Your task to perform on an android device: toggle pop-ups in chrome Image 0: 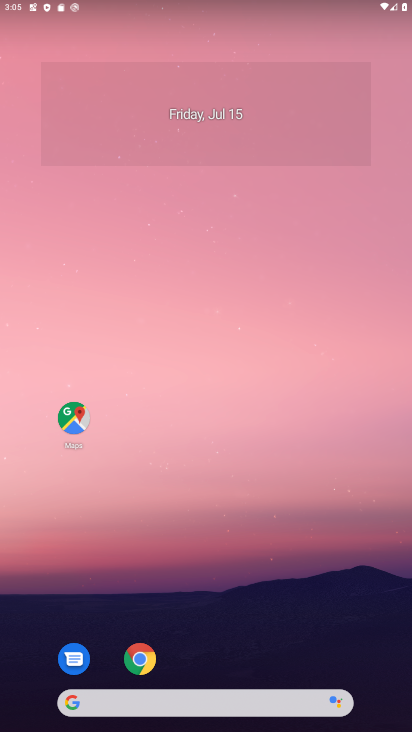
Step 0: click (159, 656)
Your task to perform on an android device: toggle pop-ups in chrome Image 1: 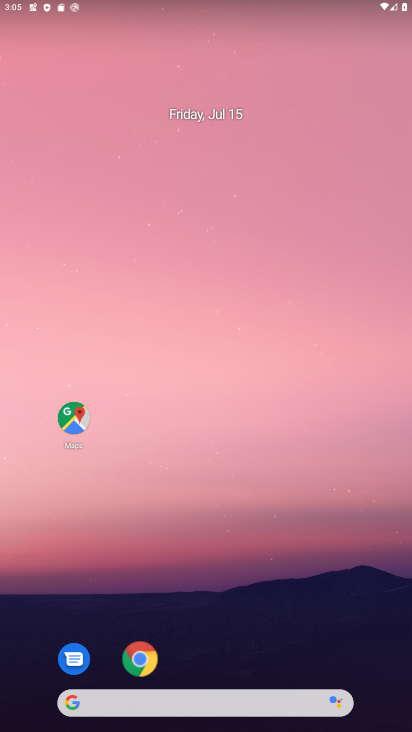
Step 1: click (149, 658)
Your task to perform on an android device: toggle pop-ups in chrome Image 2: 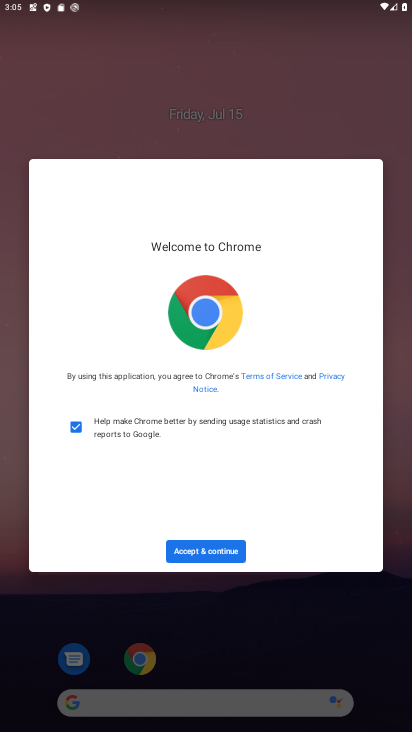
Step 2: click (219, 556)
Your task to perform on an android device: toggle pop-ups in chrome Image 3: 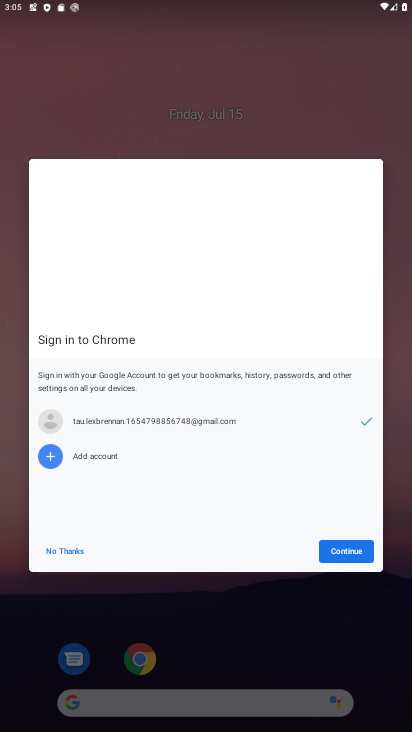
Step 3: click (331, 552)
Your task to perform on an android device: toggle pop-ups in chrome Image 4: 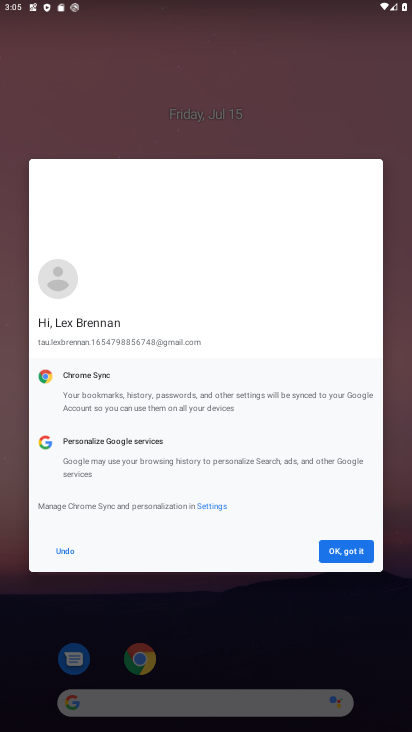
Step 4: click (341, 554)
Your task to perform on an android device: toggle pop-ups in chrome Image 5: 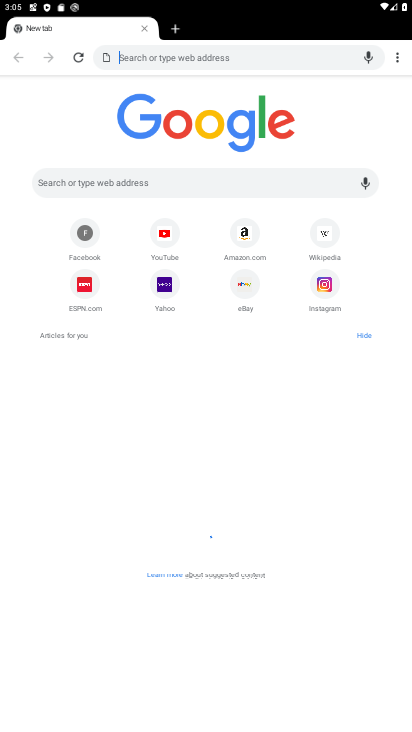
Step 5: click (398, 56)
Your task to perform on an android device: toggle pop-ups in chrome Image 6: 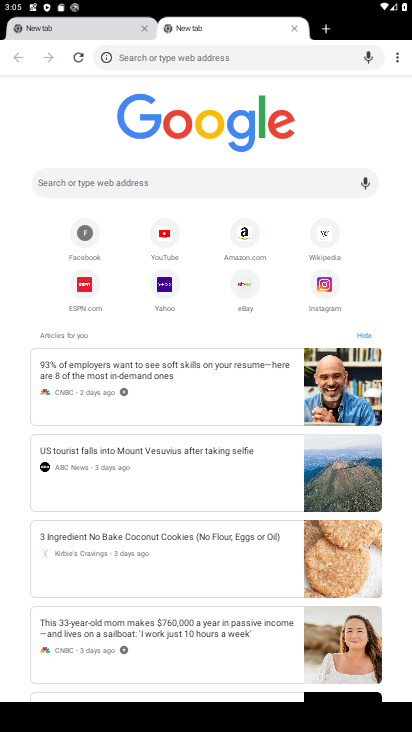
Step 6: click (393, 55)
Your task to perform on an android device: toggle pop-ups in chrome Image 7: 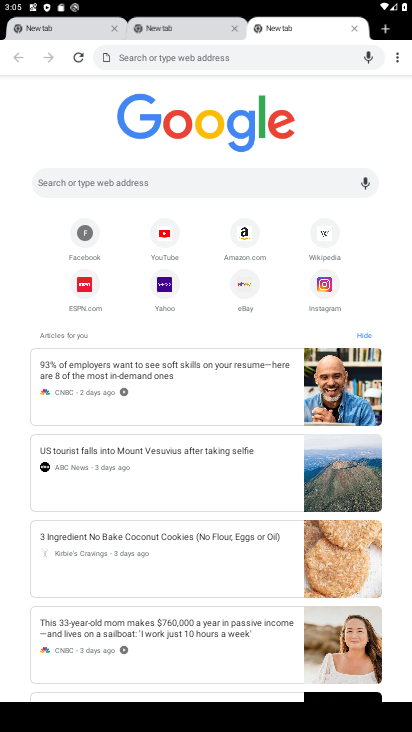
Step 7: click (392, 56)
Your task to perform on an android device: toggle pop-ups in chrome Image 8: 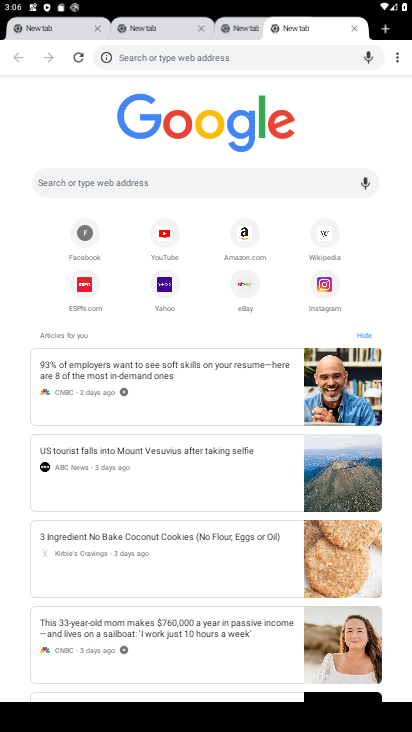
Step 8: task complete